Your task to perform on an android device: check storage Image 0: 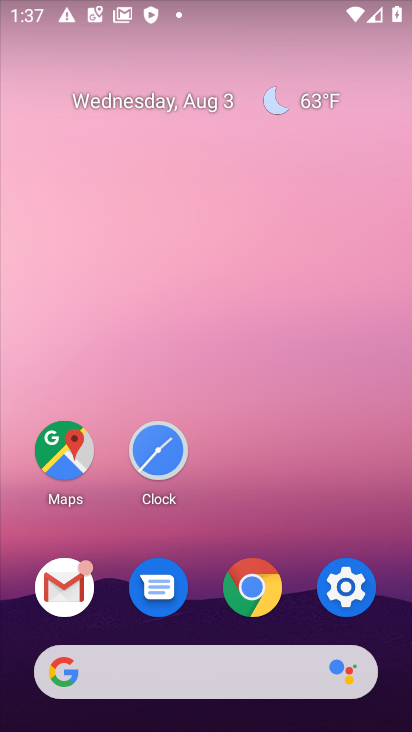
Step 0: click (349, 592)
Your task to perform on an android device: check storage Image 1: 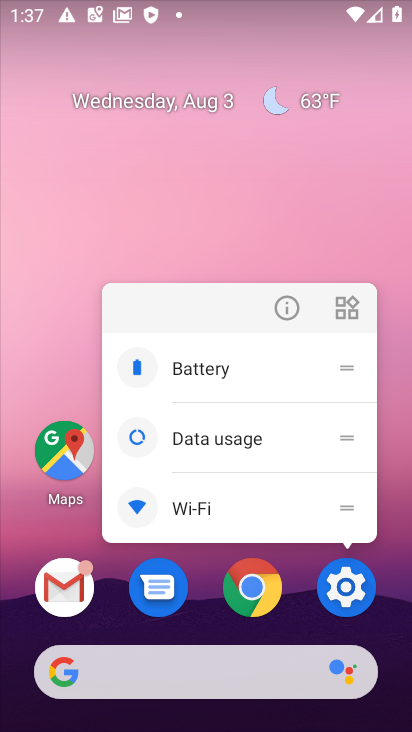
Step 1: click (350, 580)
Your task to perform on an android device: check storage Image 2: 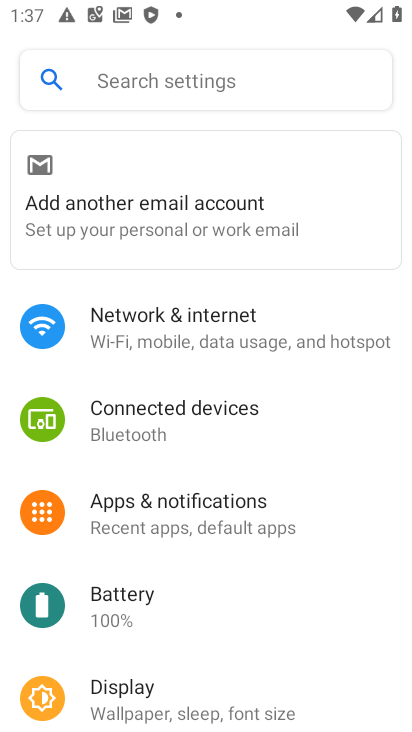
Step 2: drag from (303, 664) to (222, 227)
Your task to perform on an android device: check storage Image 3: 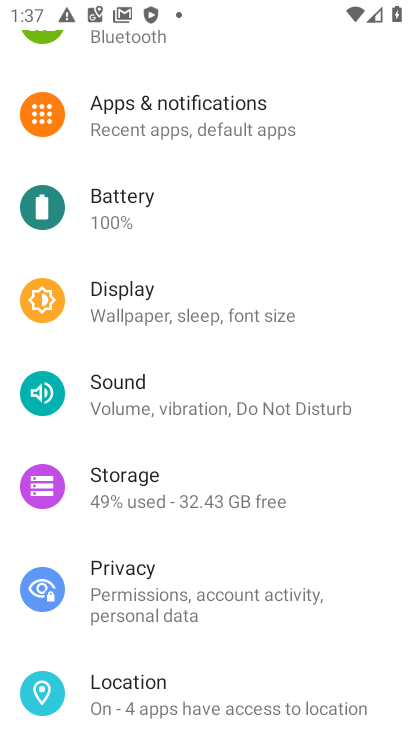
Step 3: click (117, 479)
Your task to perform on an android device: check storage Image 4: 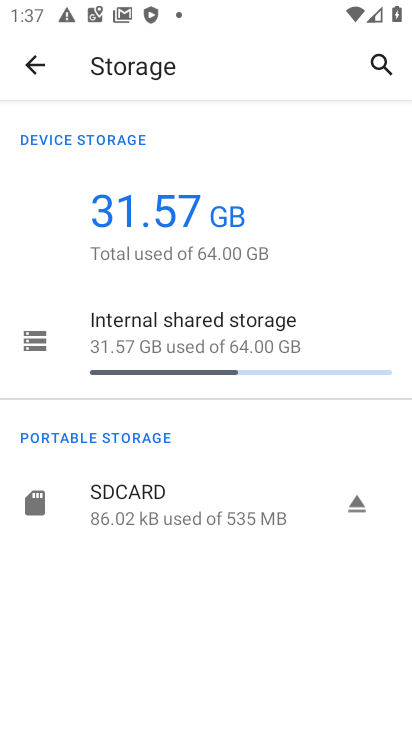
Step 4: task complete